Your task to perform on an android device: choose inbox layout in the gmail app Image 0: 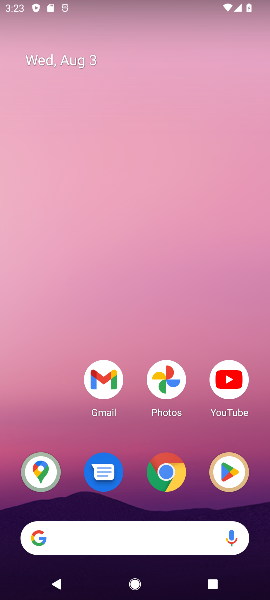
Step 0: click (109, 379)
Your task to perform on an android device: choose inbox layout in the gmail app Image 1: 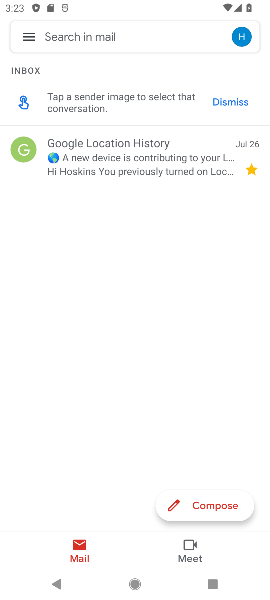
Step 1: click (33, 39)
Your task to perform on an android device: choose inbox layout in the gmail app Image 2: 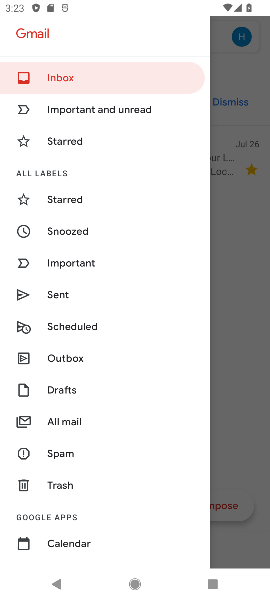
Step 2: drag from (88, 515) to (146, 39)
Your task to perform on an android device: choose inbox layout in the gmail app Image 3: 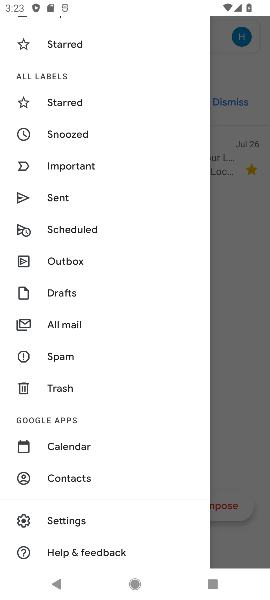
Step 3: click (77, 523)
Your task to perform on an android device: choose inbox layout in the gmail app Image 4: 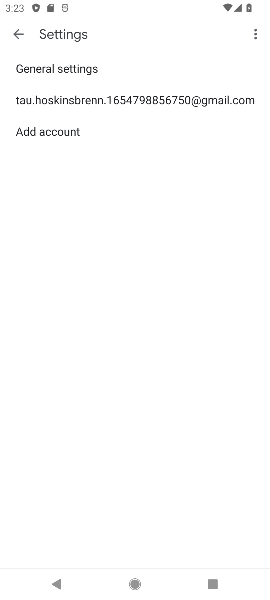
Step 4: click (92, 108)
Your task to perform on an android device: choose inbox layout in the gmail app Image 5: 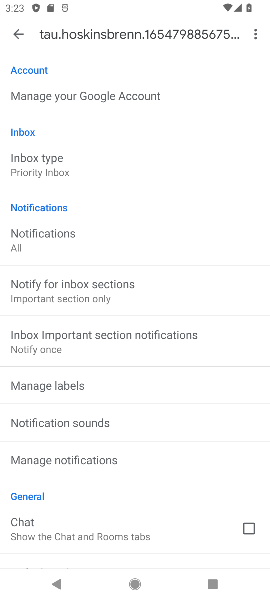
Step 5: click (58, 168)
Your task to perform on an android device: choose inbox layout in the gmail app Image 6: 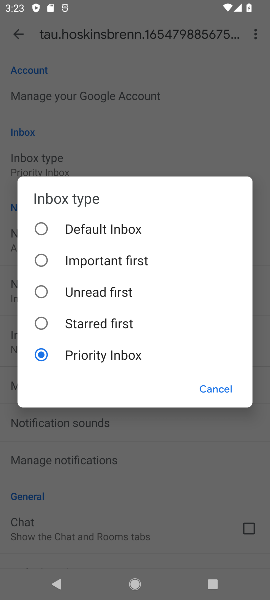
Step 6: click (43, 227)
Your task to perform on an android device: choose inbox layout in the gmail app Image 7: 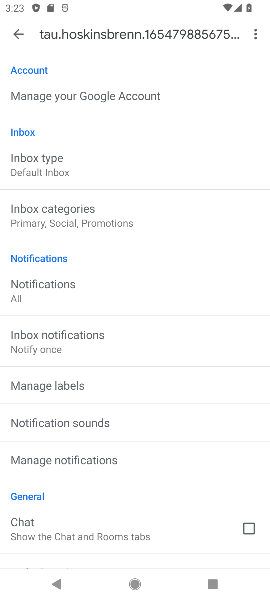
Step 7: task complete